Your task to perform on an android device: open device folders in google photos Image 0: 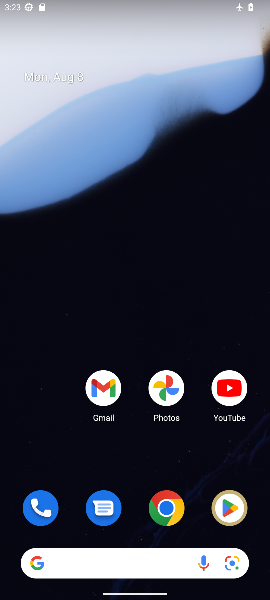
Step 0: click (166, 384)
Your task to perform on an android device: open device folders in google photos Image 1: 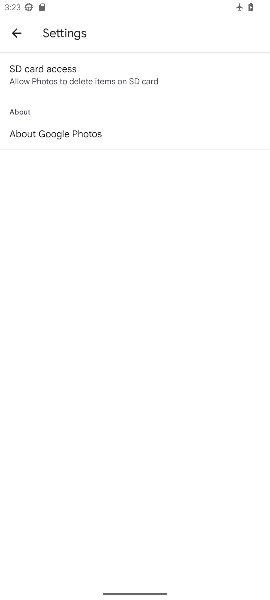
Step 1: click (11, 34)
Your task to perform on an android device: open device folders in google photos Image 2: 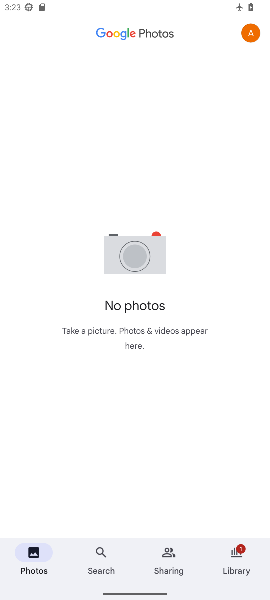
Step 2: click (96, 547)
Your task to perform on an android device: open device folders in google photos Image 3: 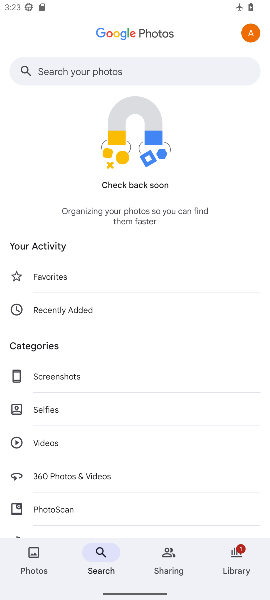
Step 3: click (69, 64)
Your task to perform on an android device: open device folders in google photos Image 4: 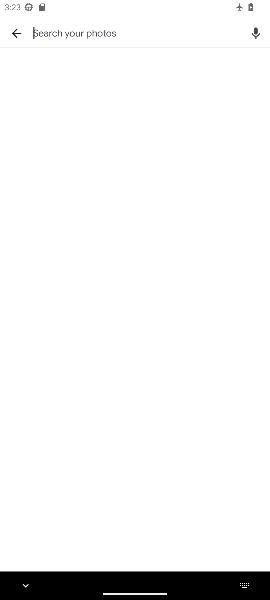
Step 4: type "device"
Your task to perform on an android device: open device folders in google photos Image 5: 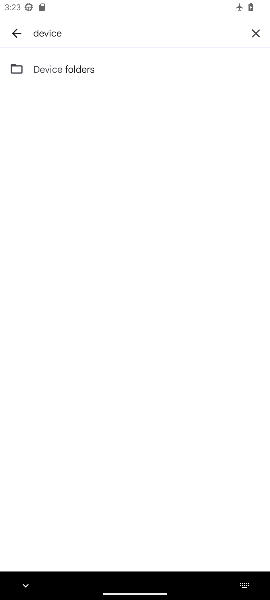
Step 5: click (76, 68)
Your task to perform on an android device: open device folders in google photos Image 6: 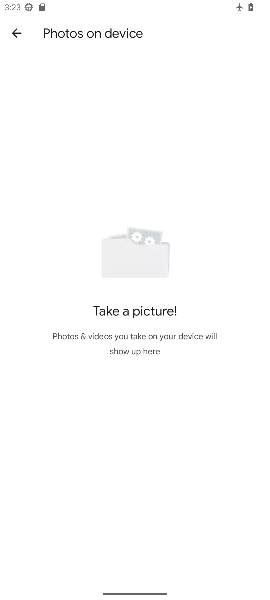
Step 6: task complete